Your task to perform on an android device: open app "LinkedIn" (install if not already installed) and enter user name: "dirt@inbox.com" and password: "receptionist" Image 0: 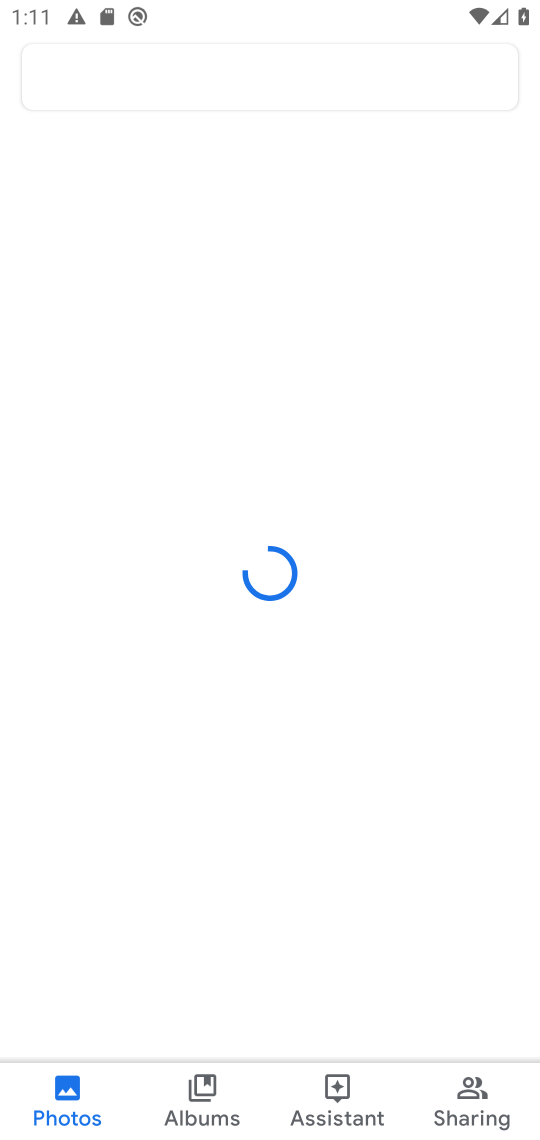
Step 0: press home button
Your task to perform on an android device: open app "LinkedIn" (install if not already installed) and enter user name: "dirt@inbox.com" and password: "receptionist" Image 1: 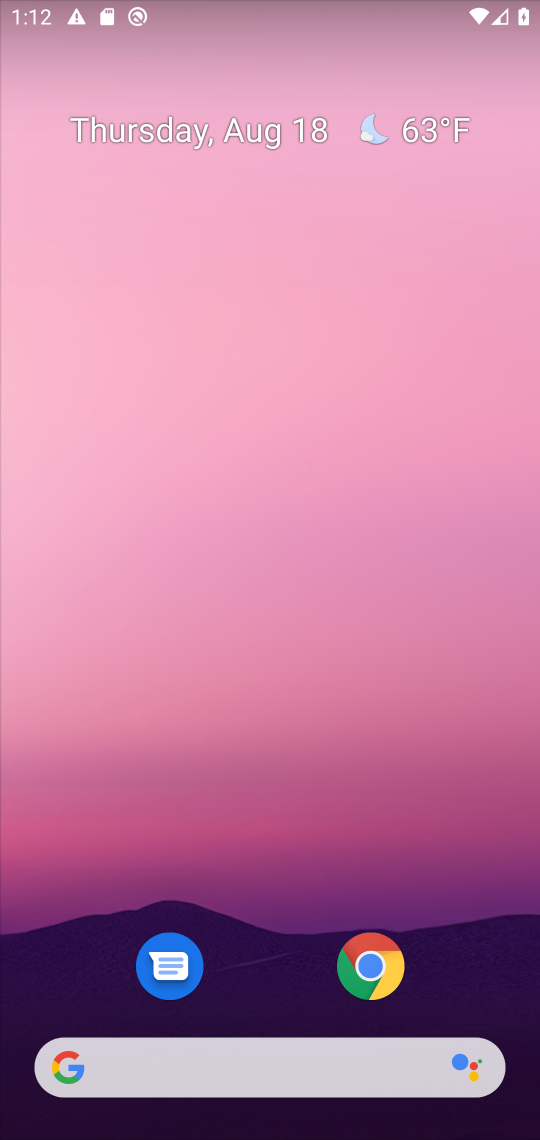
Step 1: drag from (289, 900) to (380, 396)
Your task to perform on an android device: open app "LinkedIn" (install if not already installed) and enter user name: "dirt@inbox.com" and password: "receptionist" Image 2: 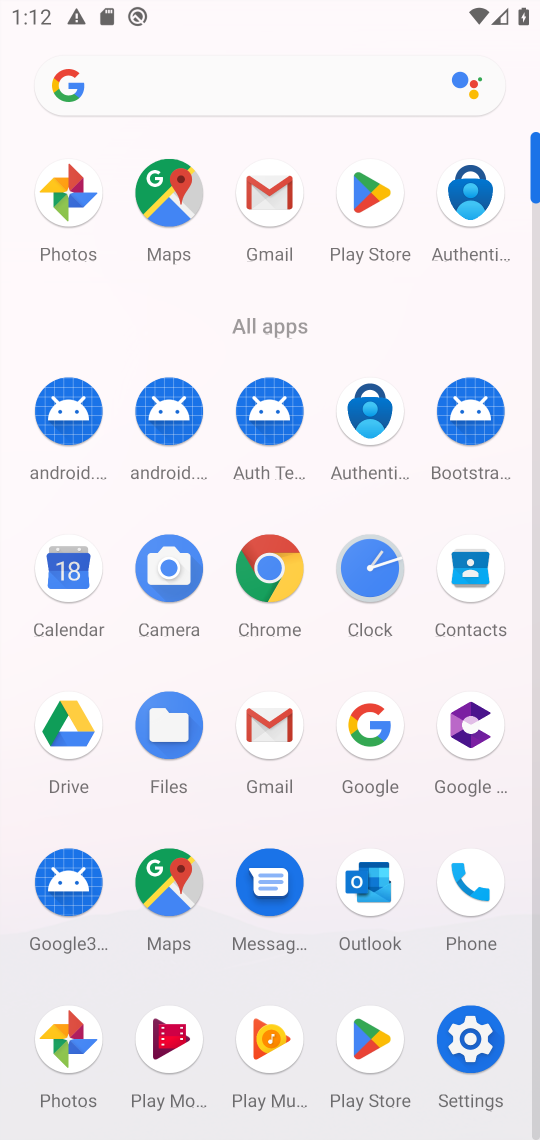
Step 2: click (372, 1047)
Your task to perform on an android device: open app "LinkedIn" (install if not already installed) and enter user name: "dirt@inbox.com" and password: "receptionist" Image 3: 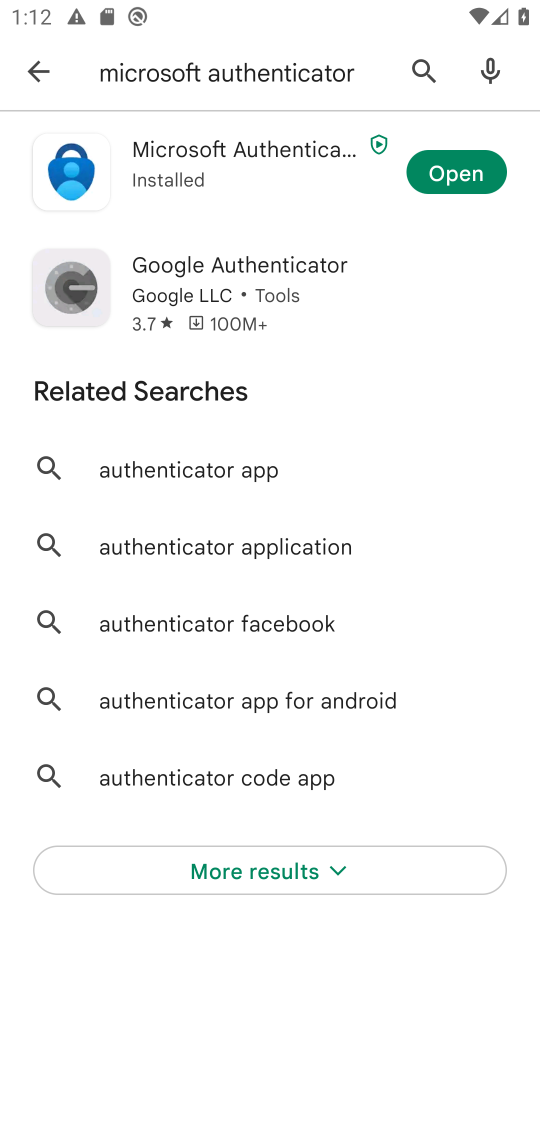
Step 3: click (406, 87)
Your task to perform on an android device: open app "LinkedIn" (install if not already installed) and enter user name: "dirt@inbox.com" and password: "receptionist" Image 4: 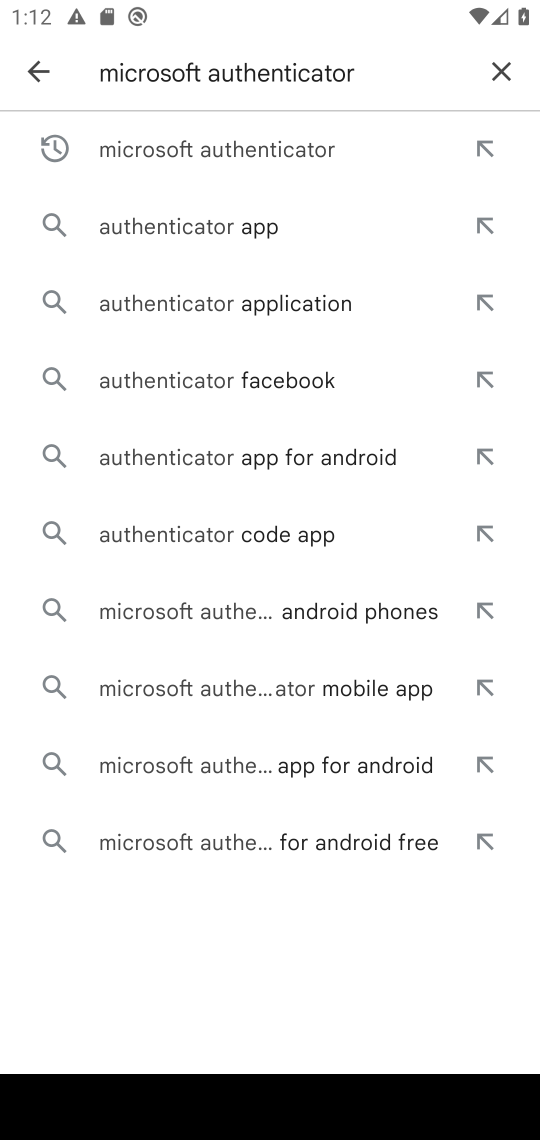
Step 4: click (501, 69)
Your task to perform on an android device: open app "LinkedIn" (install if not already installed) and enter user name: "dirt@inbox.com" and password: "receptionist" Image 5: 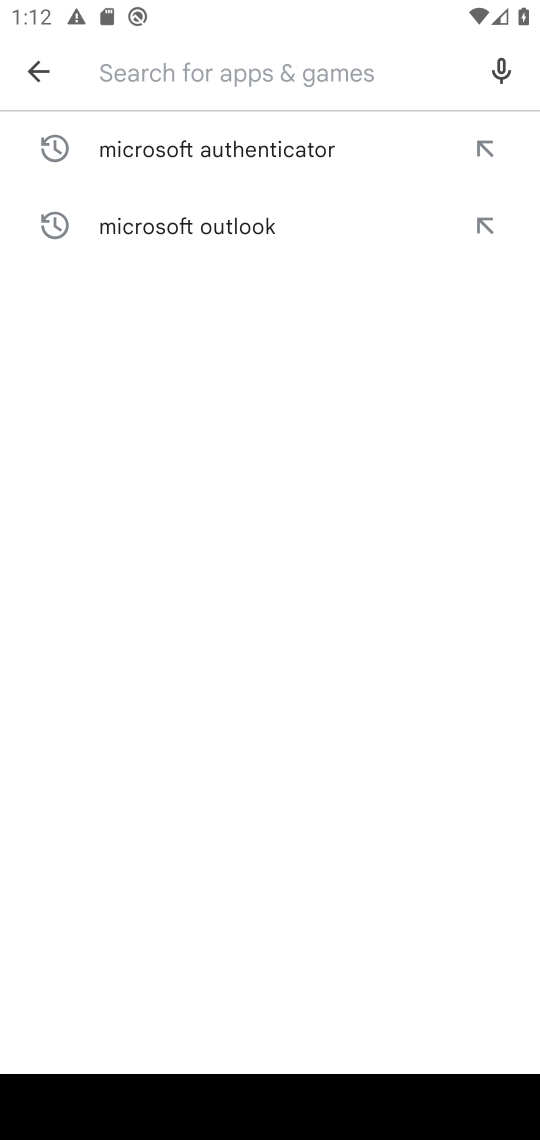
Step 5: type "LinkedIn"
Your task to perform on an android device: open app "LinkedIn" (install if not already installed) and enter user name: "dirt@inbox.com" and password: "receptionist" Image 6: 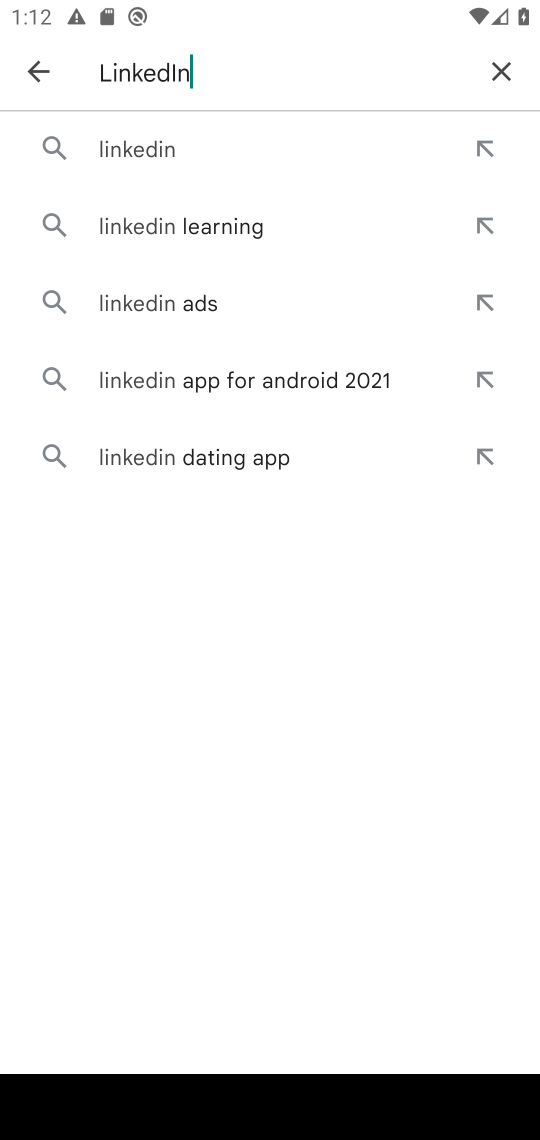
Step 6: click (166, 143)
Your task to perform on an android device: open app "LinkedIn" (install if not already installed) and enter user name: "dirt@inbox.com" and password: "receptionist" Image 7: 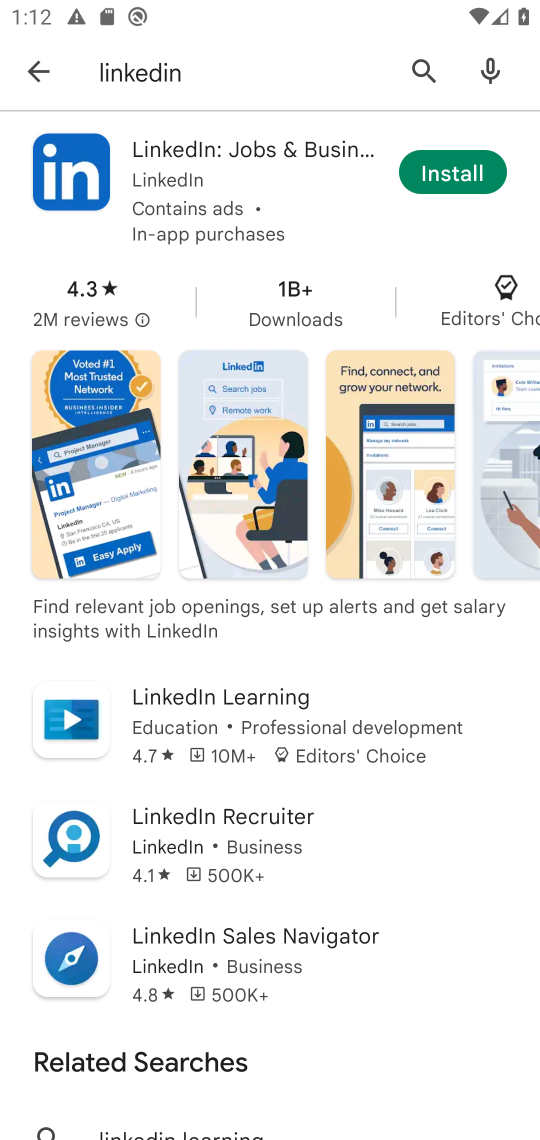
Step 7: click (452, 168)
Your task to perform on an android device: open app "LinkedIn" (install if not already installed) and enter user name: "dirt@inbox.com" and password: "receptionist" Image 8: 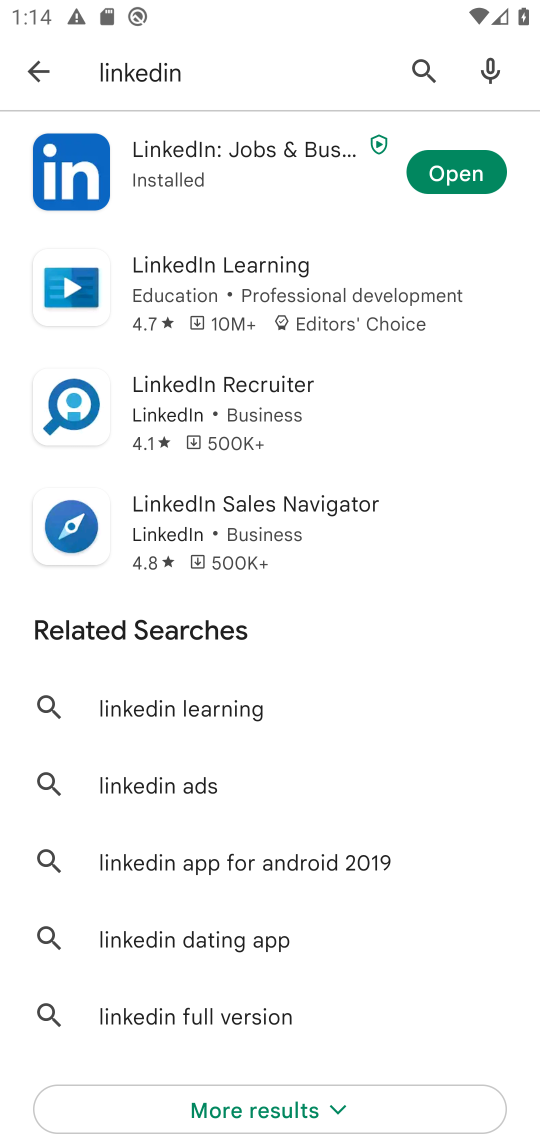
Step 8: click (199, 149)
Your task to perform on an android device: open app "LinkedIn" (install if not already installed) and enter user name: "dirt@inbox.com" and password: "receptionist" Image 9: 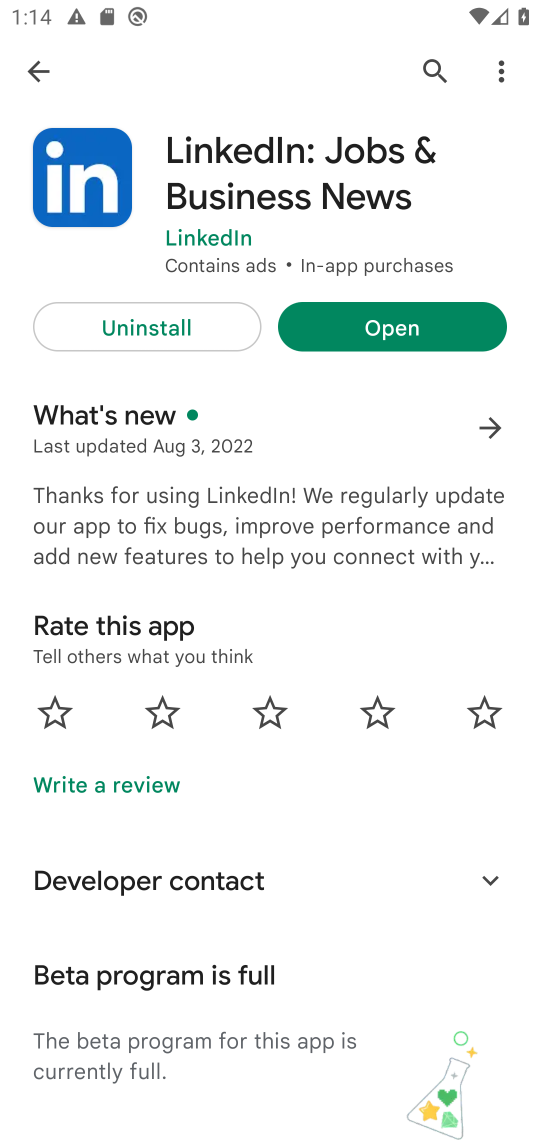
Step 9: click (384, 313)
Your task to perform on an android device: open app "LinkedIn" (install if not already installed) and enter user name: "dirt@inbox.com" and password: "receptionist" Image 10: 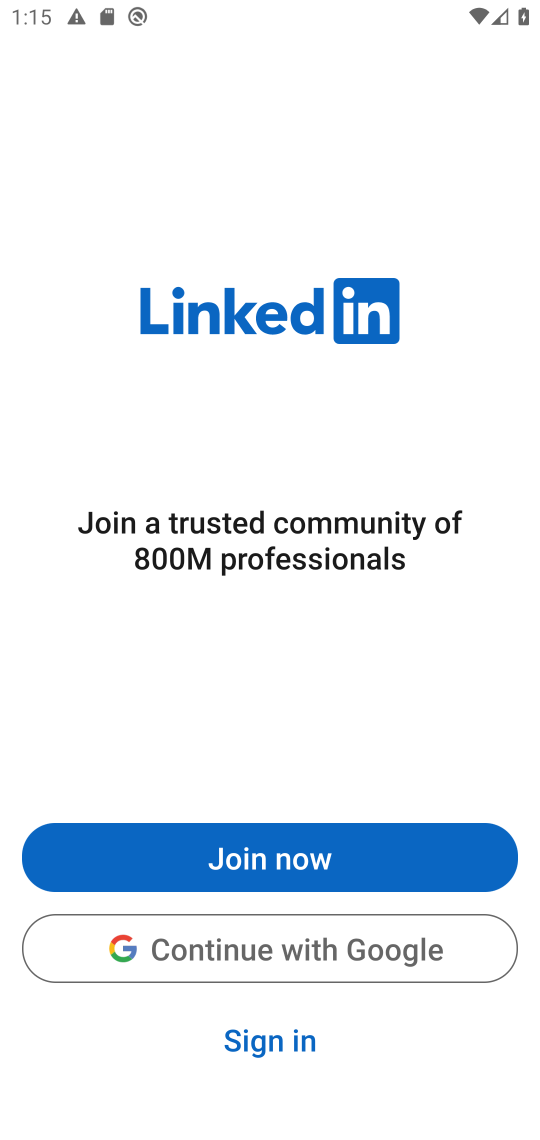
Step 10: click (290, 943)
Your task to perform on an android device: open app "LinkedIn" (install if not already installed) and enter user name: "dirt@inbox.com" and password: "receptionist" Image 11: 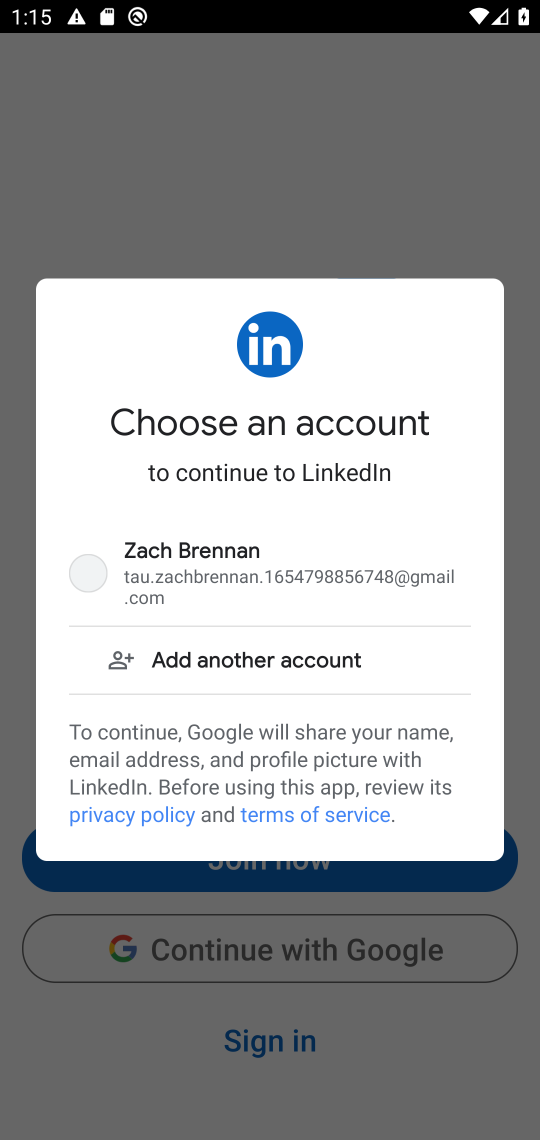
Step 11: click (187, 583)
Your task to perform on an android device: open app "LinkedIn" (install if not already installed) and enter user name: "dirt@inbox.com" and password: "receptionist" Image 12: 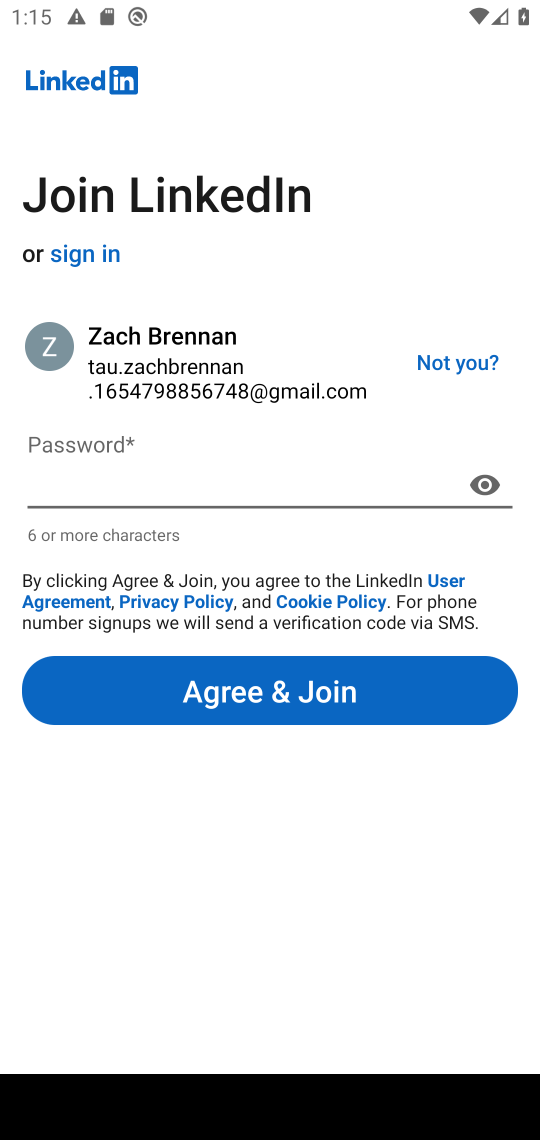
Step 12: task complete